Your task to perform on an android device: turn off notifications in google photos Image 0: 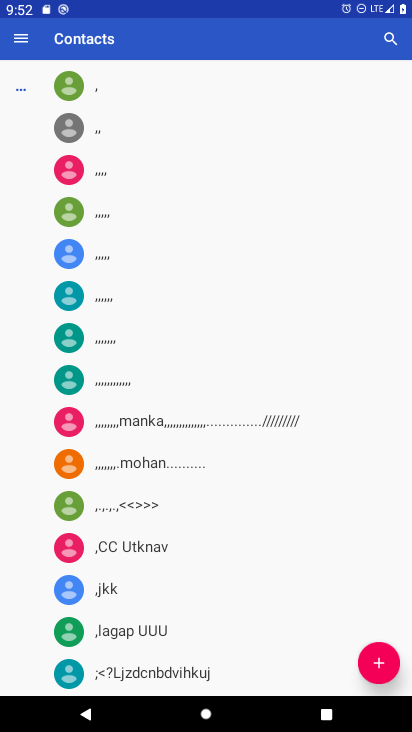
Step 0: press home button
Your task to perform on an android device: turn off notifications in google photos Image 1: 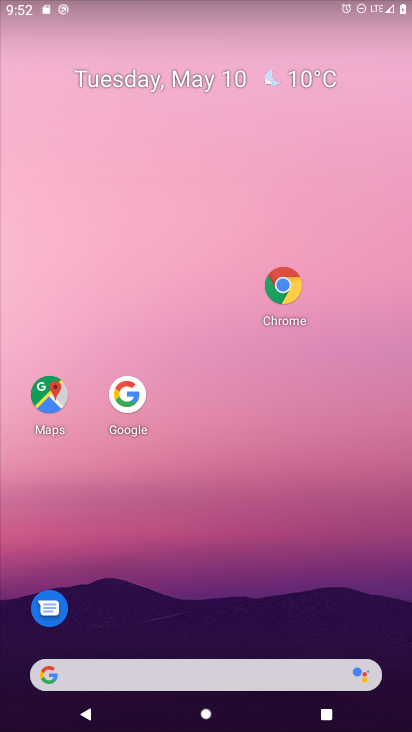
Step 1: drag from (210, 619) to (349, 164)
Your task to perform on an android device: turn off notifications in google photos Image 2: 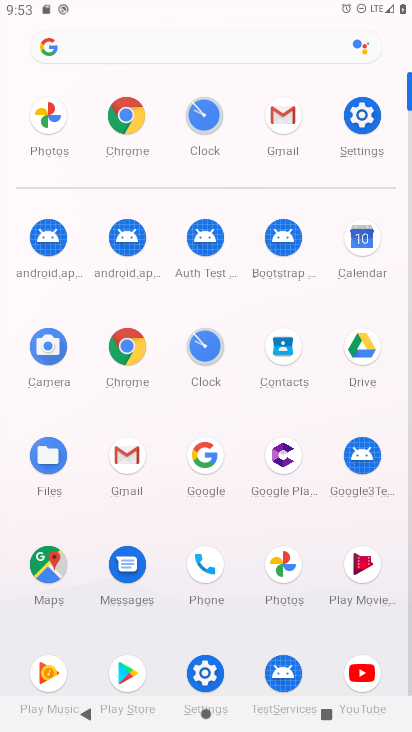
Step 2: click (274, 565)
Your task to perform on an android device: turn off notifications in google photos Image 3: 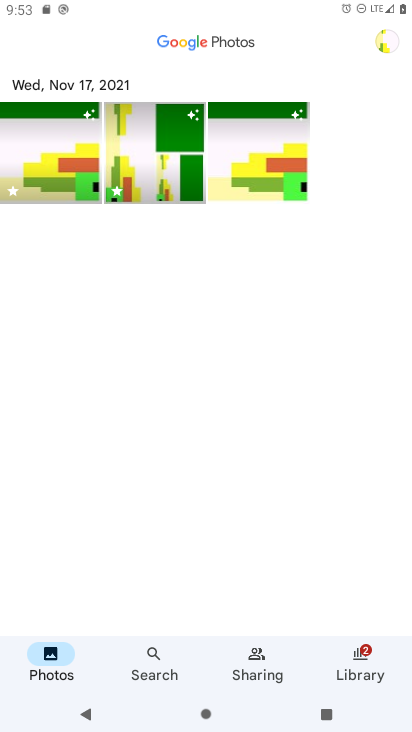
Step 3: click (386, 41)
Your task to perform on an android device: turn off notifications in google photos Image 4: 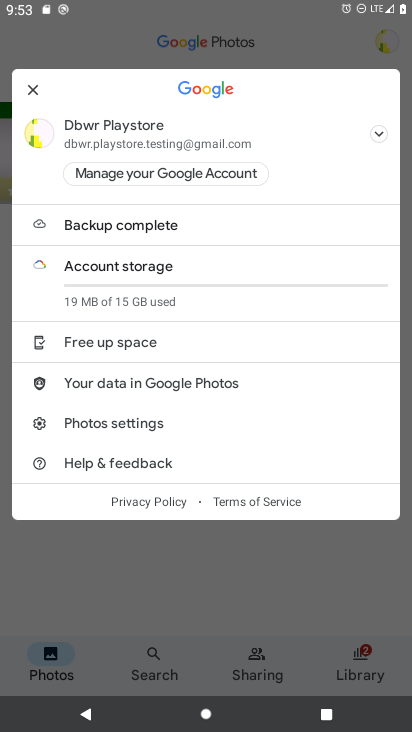
Step 4: click (114, 420)
Your task to perform on an android device: turn off notifications in google photos Image 5: 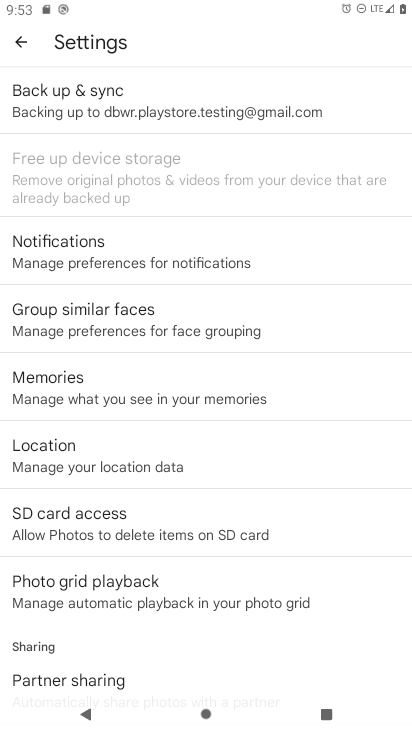
Step 5: click (150, 266)
Your task to perform on an android device: turn off notifications in google photos Image 6: 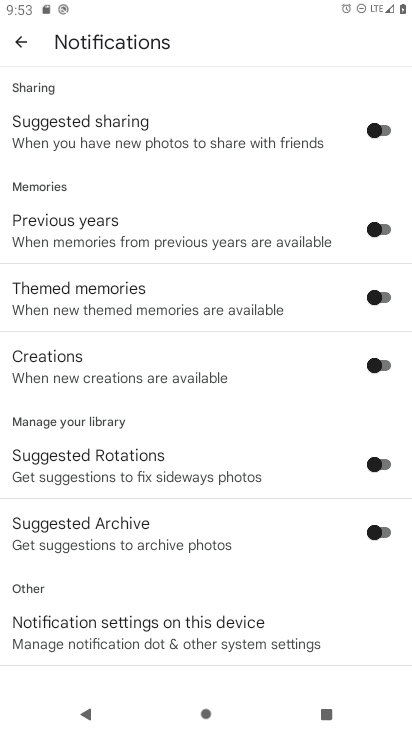
Step 6: click (145, 627)
Your task to perform on an android device: turn off notifications in google photos Image 7: 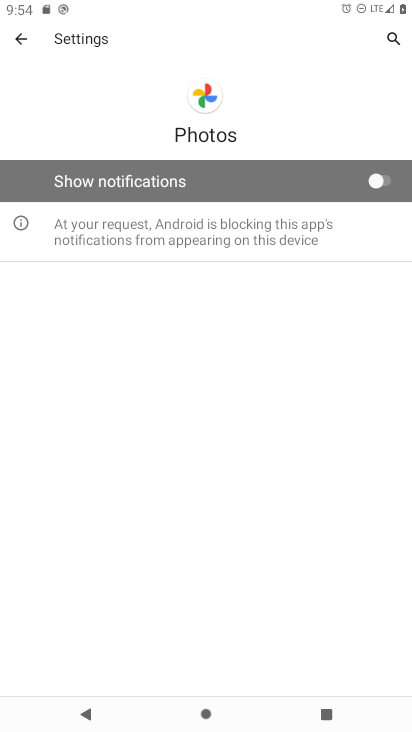
Step 7: task complete